Your task to perform on an android device: Open the calendar and show me this week's events? Image 0: 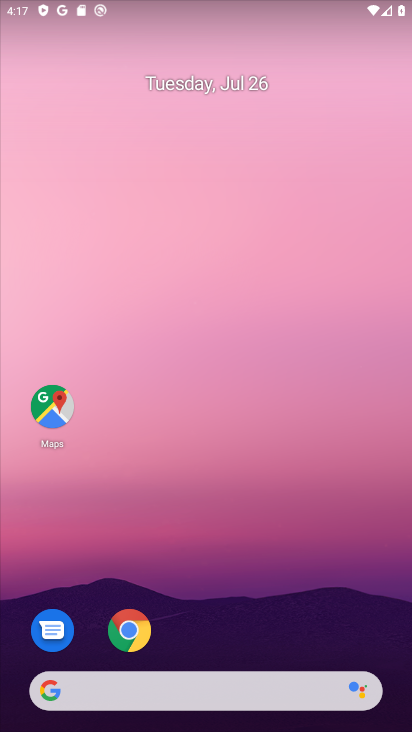
Step 0: drag from (315, 644) to (269, 95)
Your task to perform on an android device: Open the calendar and show me this week's events? Image 1: 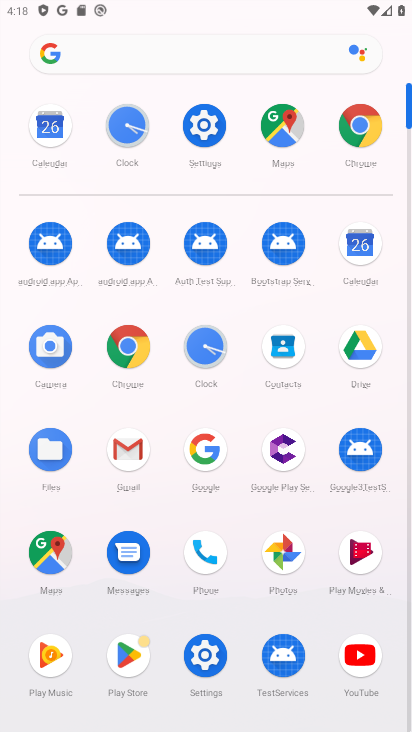
Step 1: click (53, 131)
Your task to perform on an android device: Open the calendar and show me this week's events? Image 2: 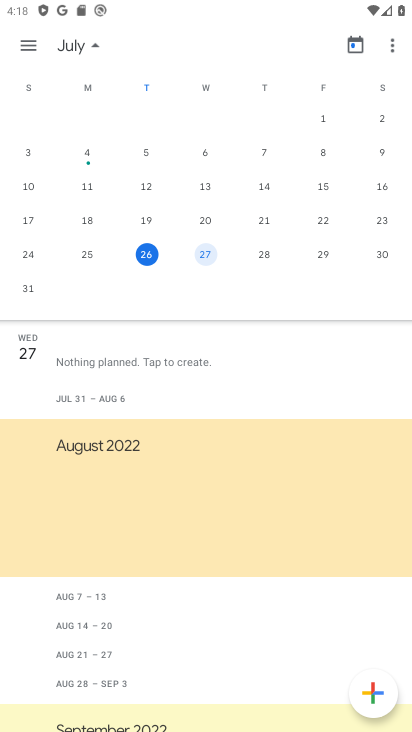
Step 2: click (39, 38)
Your task to perform on an android device: Open the calendar and show me this week's events? Image 3: 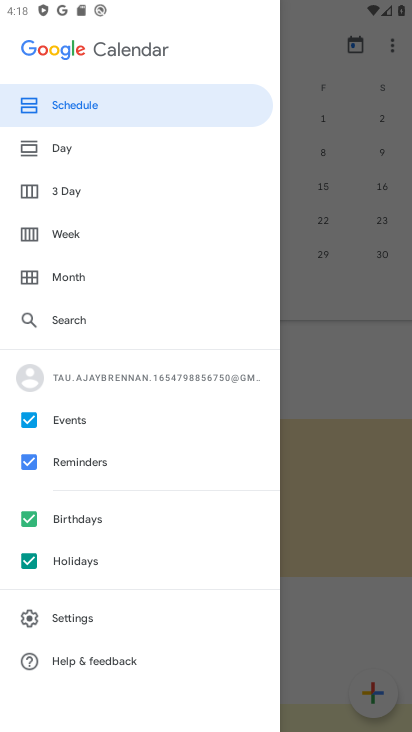
Step 3: click (76, 222)
Your task to perform on an android device: Open the calendar and show me this week's events? Image 4: 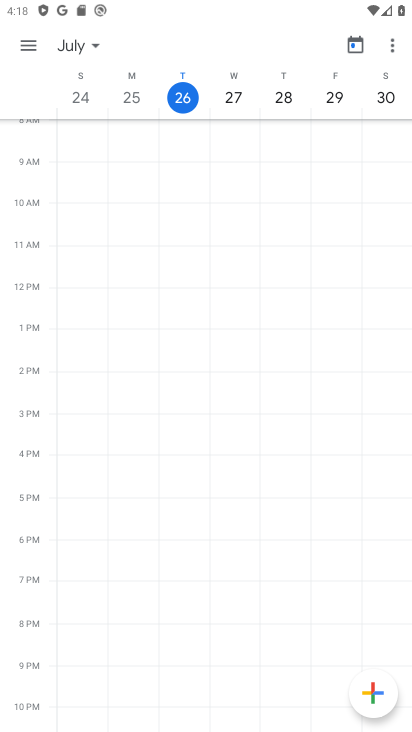
Step 4: task complete